Your task to perform on an android device: change notifications settings Image 0: 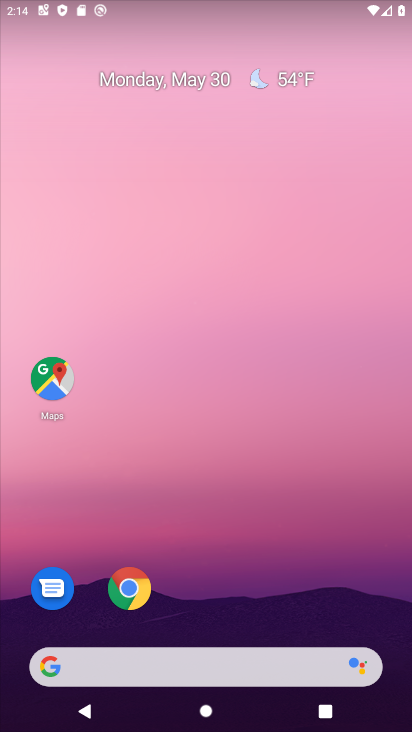
Step 0: press home button
Your task to perform on an android device: change notifications settings Image 1: 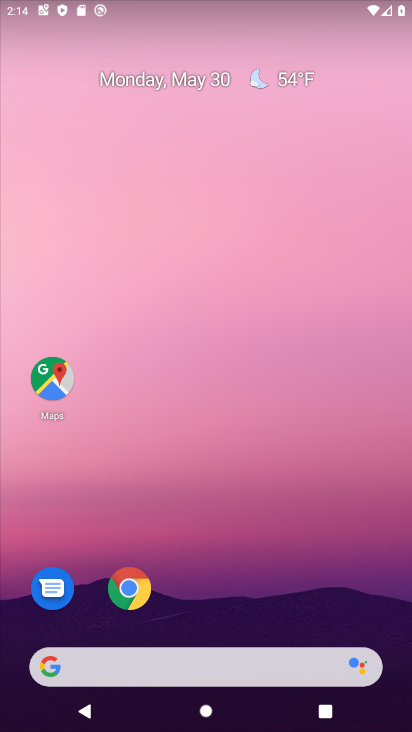
Step 1: drag from (190, 603) to (253, 126)
Your task to perform on an android device: change notifications settings Image 2: 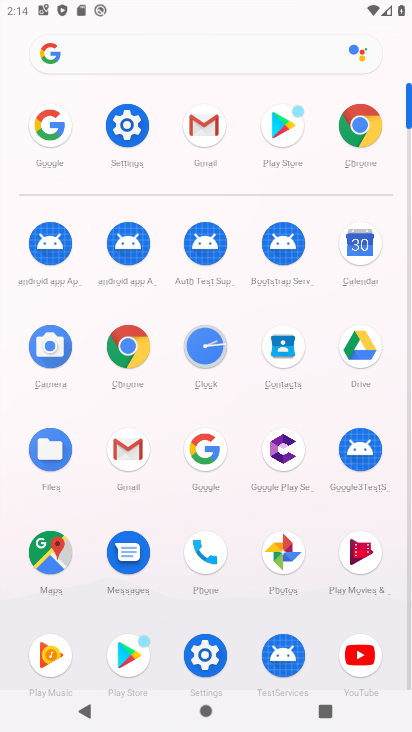
Step 2: click (122, 122)
Your task to perform on an android device: change notifications settings Image 3: 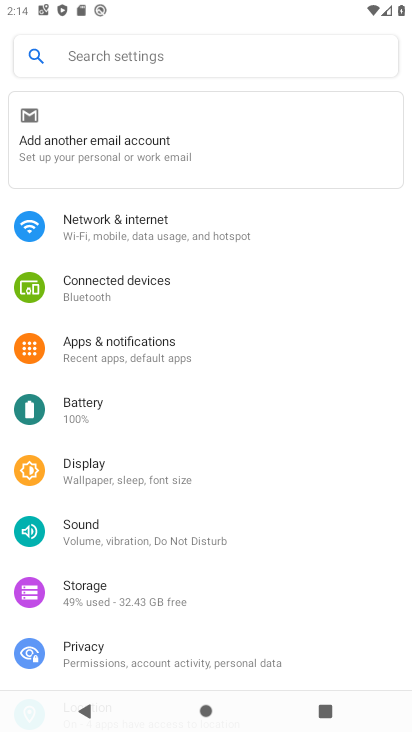
Step 3: click (130, 344)
Your task to perform on an android device: change notifications settings Image 4: 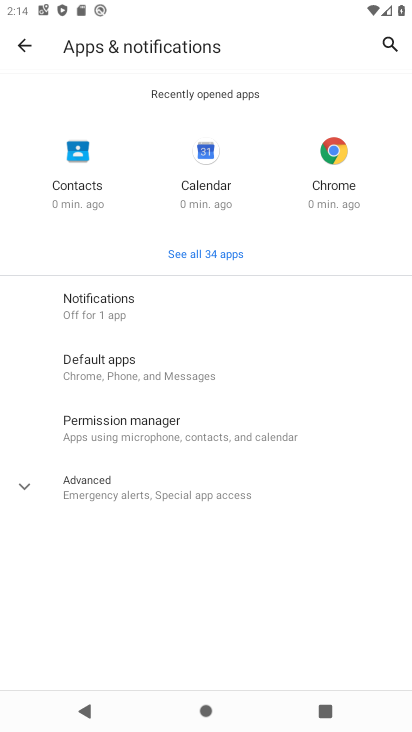
Step 4: click (130, 308)
Your task to perform on an android device: change notifications settings Image 5: 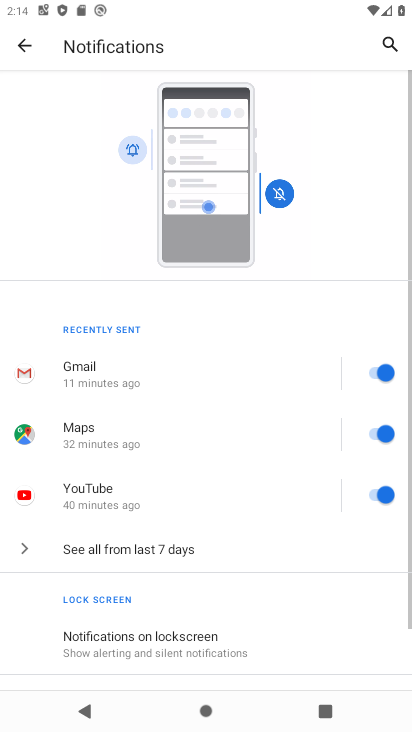
Step 5: drag from (236, 612) to (269, 210)
Your task to perform on an android device: change notifications settings Image 6: 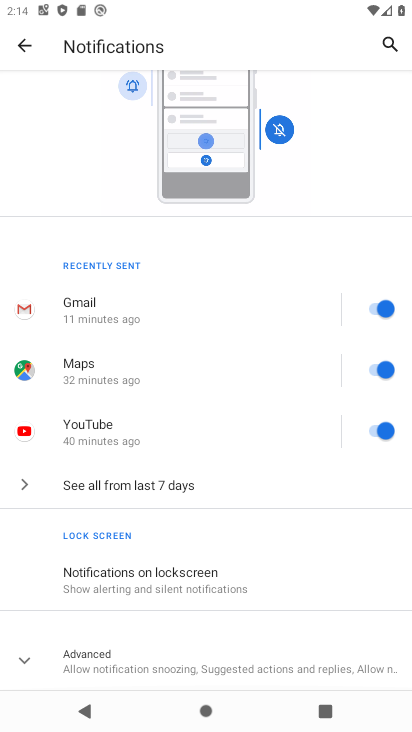
Step 6: click (116, 654)
Your task to perform on an android device: change notifications settings Image 7: 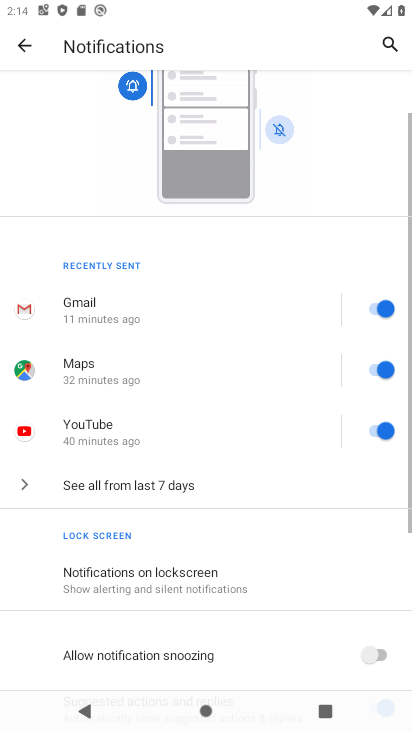
Step 7: drag from (362, 610) to (371, 183)
Your task to perform on an android device: change notifications settings Image 8: 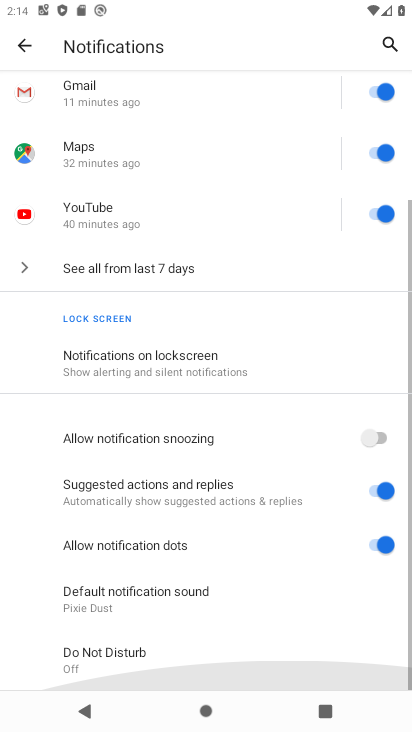
Step 8: click (375, 440)
Your task to perform on an android device: change notifications settings Image 9: 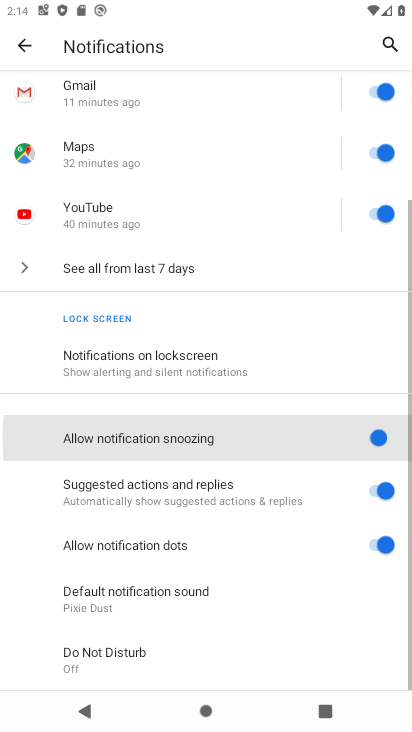
Step 9: click (381, 491)
Your task to perform on an android device: change notifications settings Image 10: 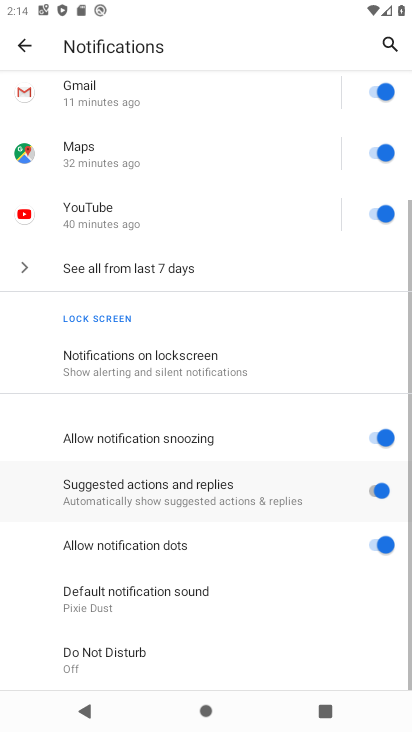
Step 10: click (383, 554)
Your task to perform on an android device: change notifications settings Image 11: 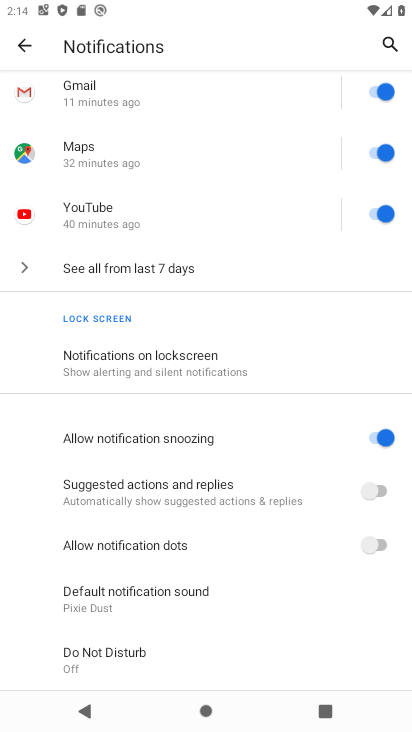
Step 11: task complete